Your task to perform on an android device: Go to CNN.com Image 0: 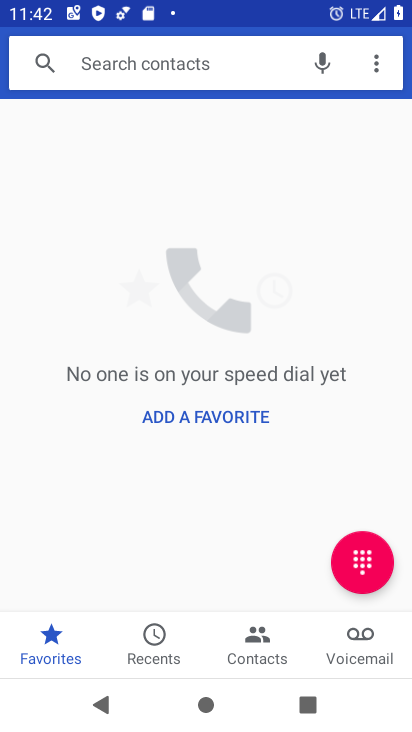
Step 0: press home button
Your task to perform on an android device: Go to CNN.com Image 1: 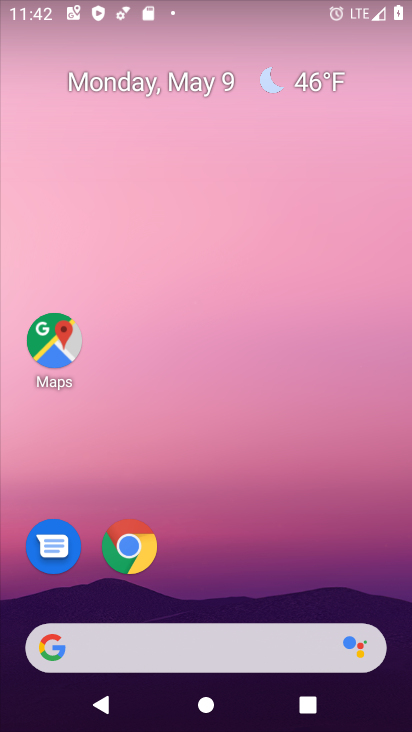
Step 1: click (138, 549)
Your task to perform on an android device: Go to CNN.com Image 2: 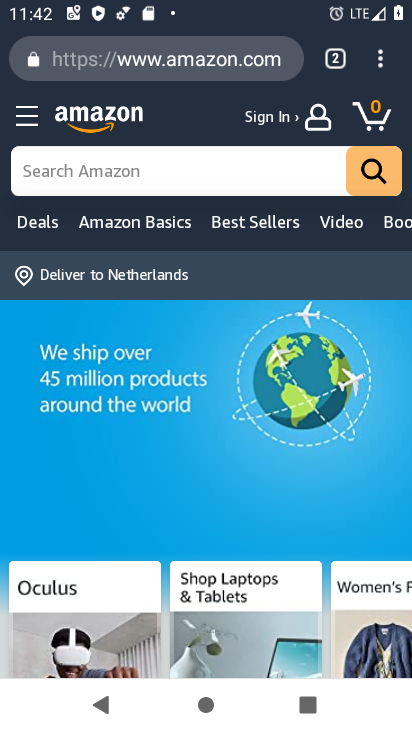
Step 2: click (146, 70)
Your task to perform on an android device: Go to CNN.com Image 3: 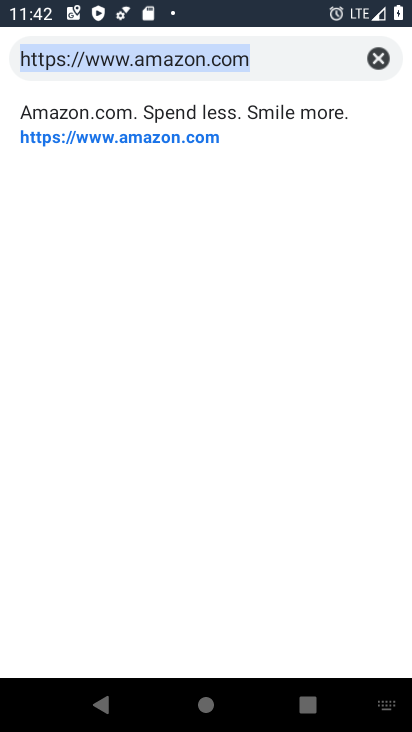
Step 3: click (385, 61)
Your task to perform on an android device: Go to CNN.com Image 4: 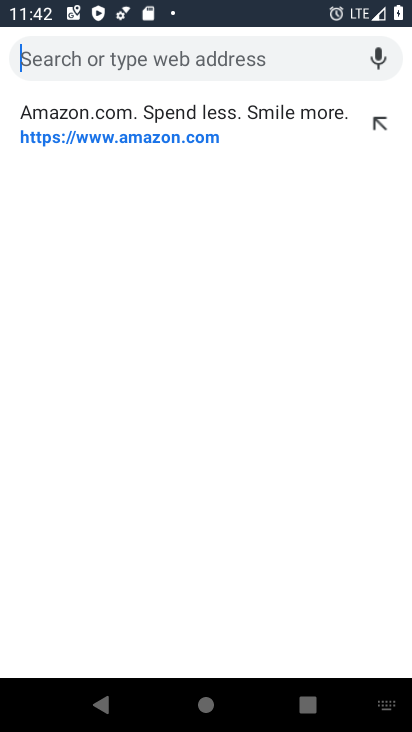
Step 4: click (125, 58)
Your task to perform on an android device: Go to CNN.com Image 5: 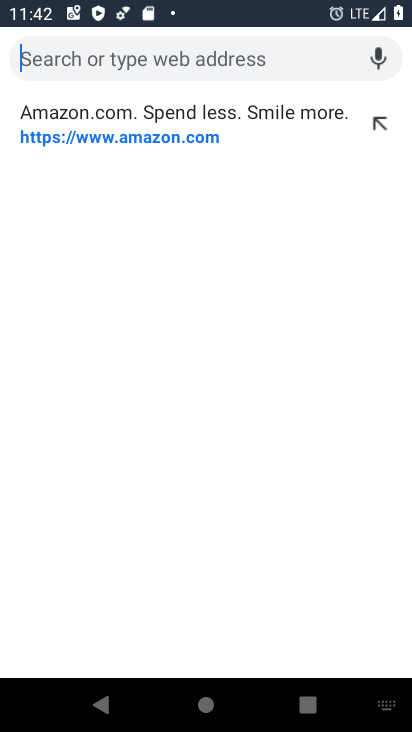
Step 5: type "cnn.com"
Your task to perform on an android device: Go to CNN.com Image 6: 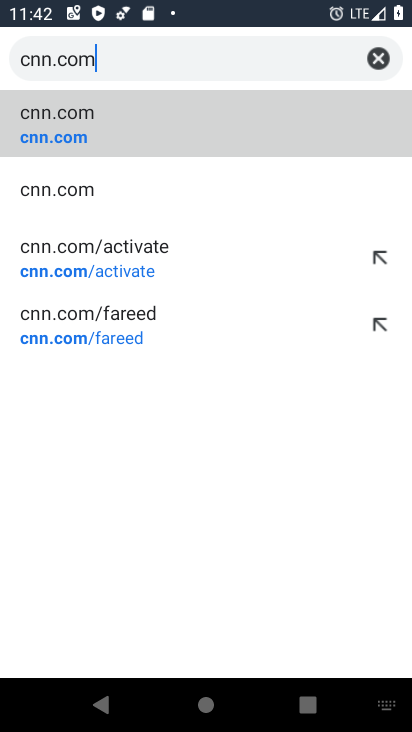
Step 6: click (67, 131)
Your task to perform on an android device: Go to CNN.com Image 7: 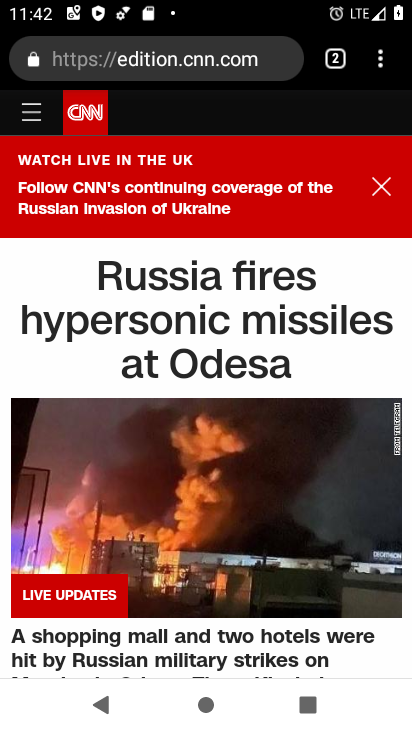
Step 7: task complete